Your task to perform on an android device: Open my contact list Image 0: 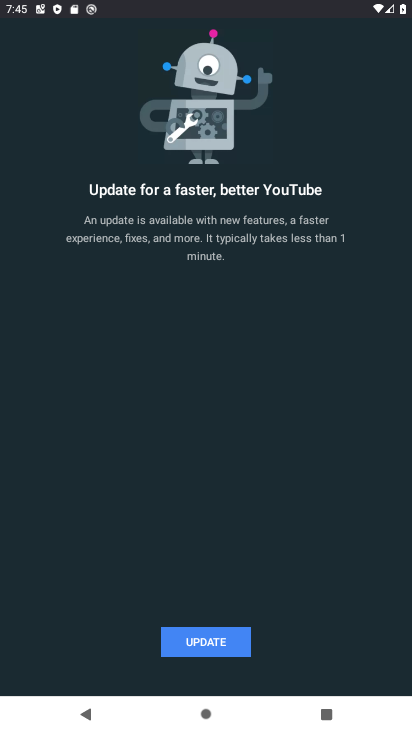
Step 0: click (176, 449)
Your task to perform on an android device: Open my contact list Image 1: 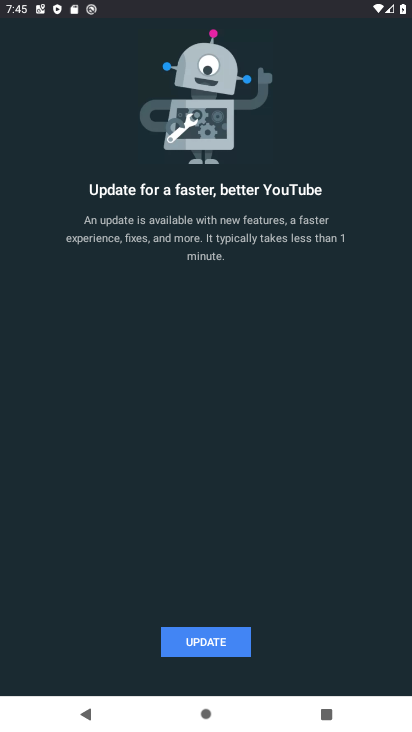
Step 1: press home button
Your task to perform on an android device: Open my contact list Image 2: 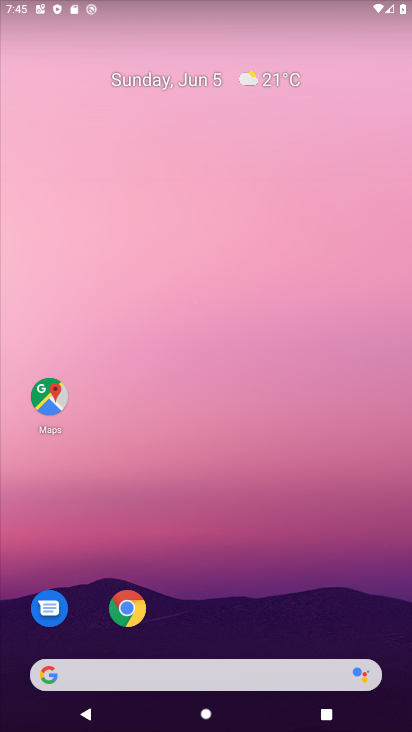
Step 2: drag from (270, 578) to (264, 146)
Your task to perform on an android device: Open my contact list Image 3: 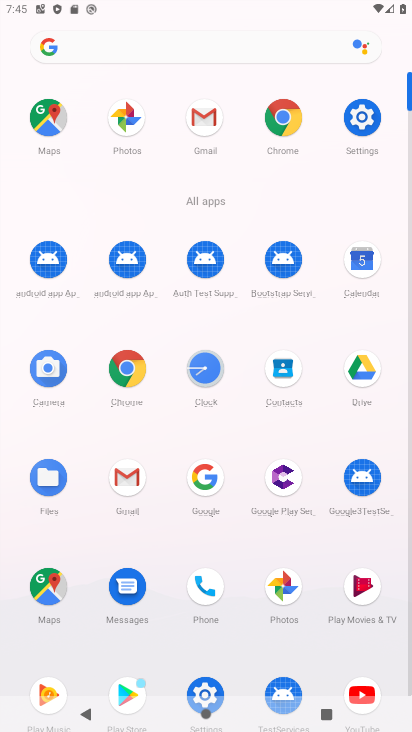
Step 3: click (286, 365)
Your task to perform on an android device: Open my contact list Image 4: 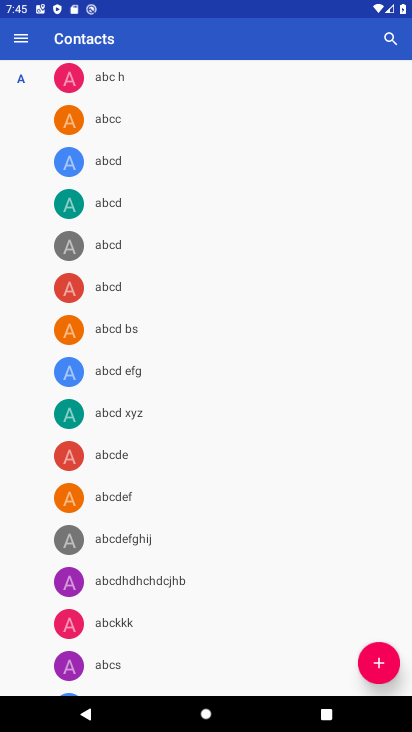
Step 4: task complete